Your task to perform on an android device: Open Google Chrome Image 0: 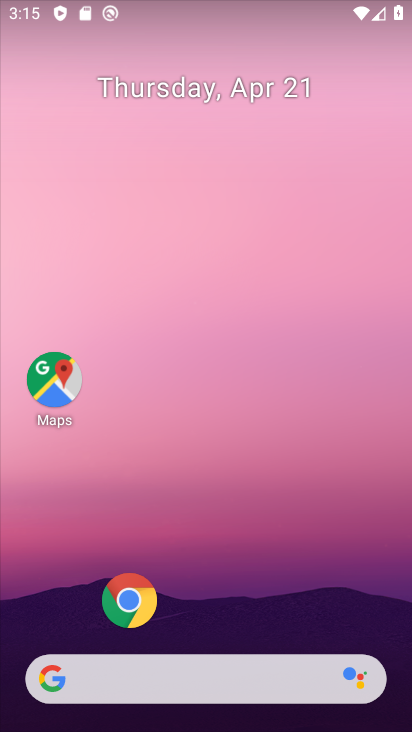
Step 0: click (112, 598)
Your task to perform on an android device: Open Google Chrome Image 1: 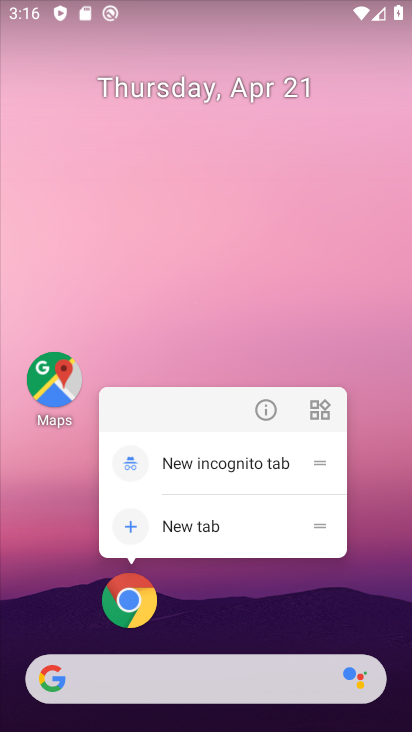
Step 1: click (264, 413)
Your task to perform on an android device: Open Google Chrome Image 2: 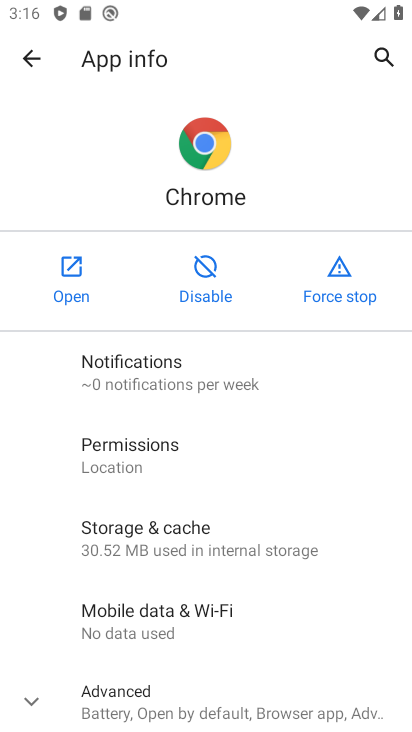
Step 2: click (76, 290)
Your task to perform on an android device: Open Google Chrome Image 3: 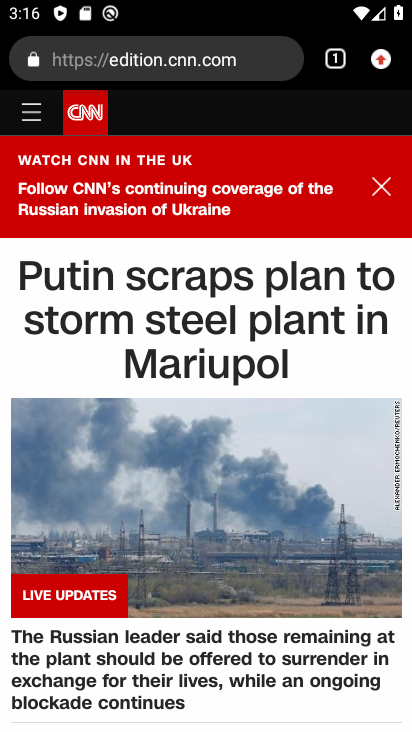
Step 3: task complete